Your task to perform on an android device: Show me the alarms in the clock app Image 0: 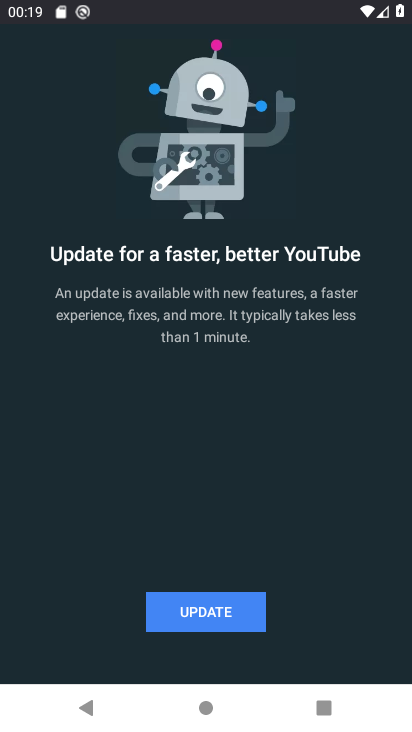
Step 0: press home button
Your task to perform on an android device: Show me the alarms in the clock app Image 1: 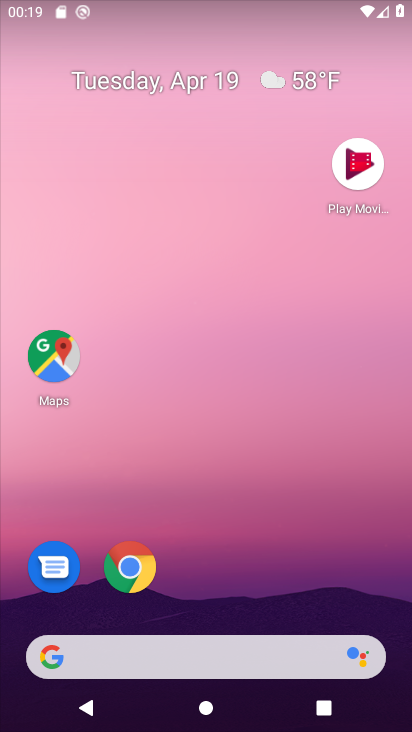
Step 1: drag from (273, 530) to (347, 157)
Your task to perform on an android device: Show me the alarms in the clock app Image 2: 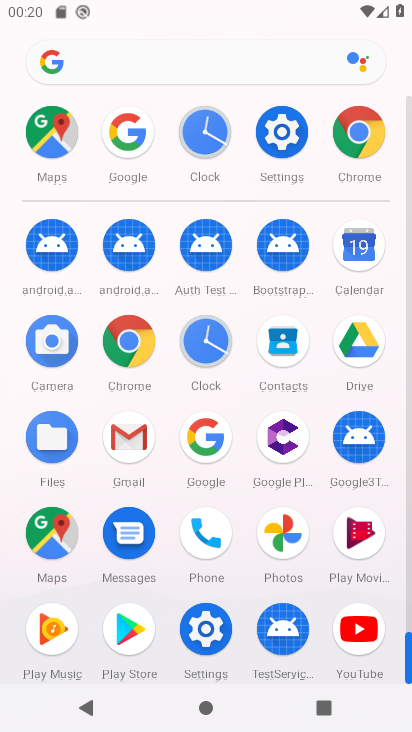
Step 2: click (187, 336)
Your task to perform on an android device: Show me the alarms in the clock app Image 3: 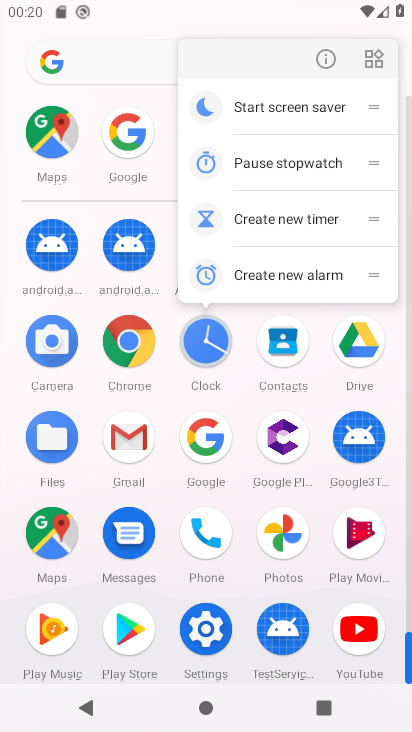
Step 3: click (322, 66)
Your task to perform on an android device: Show me the alarms in the clock app Image 4: 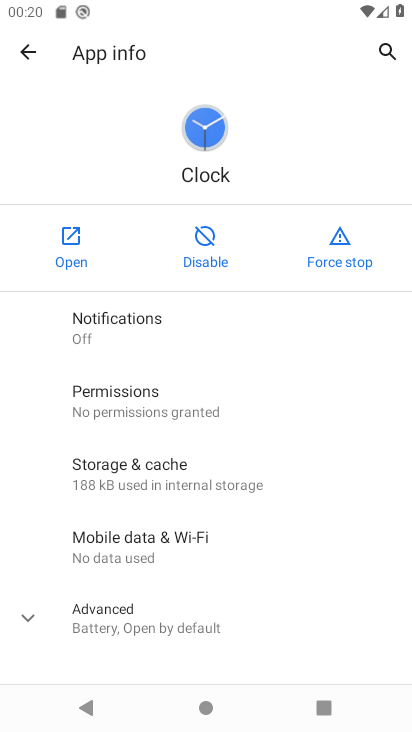
Step 4: click (94, 232)
Your task to perform on an android device: Show me the alarms in the clock app Image 5: 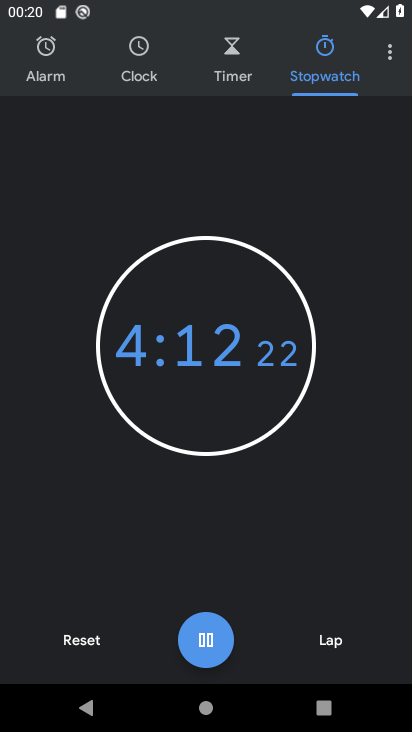
Step 5: click (288, 483)
Your task to perform on an android device: Show me the alarms in the clock app Image 6: 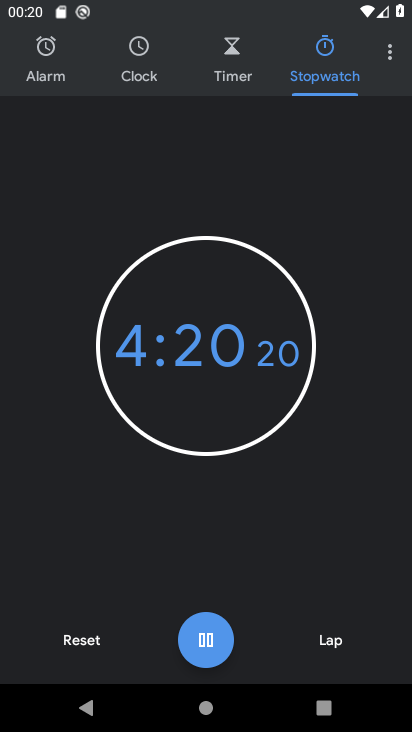
Step 6: click (242, 460)
Your task to perform on an android device: Show me the alarms in the clock app Image 7: 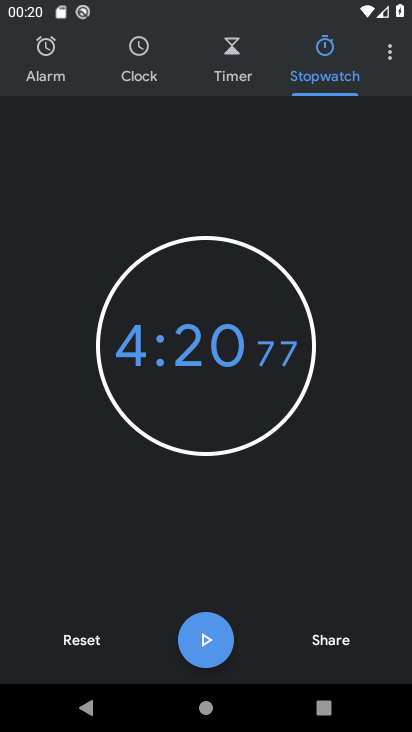
Step 7: click (50, 51)
Your task to perform on an android device: Show me the alarms in the clock app Image 8: 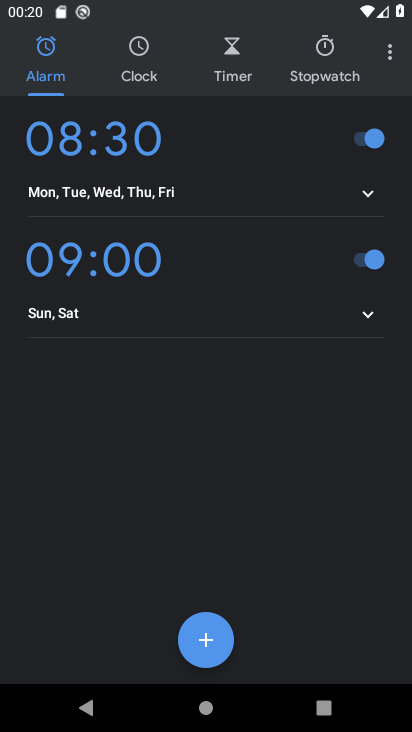
Step 8: task complete